Your task to perform on an android device: turn on showing notifications on the lock screen Image 0: 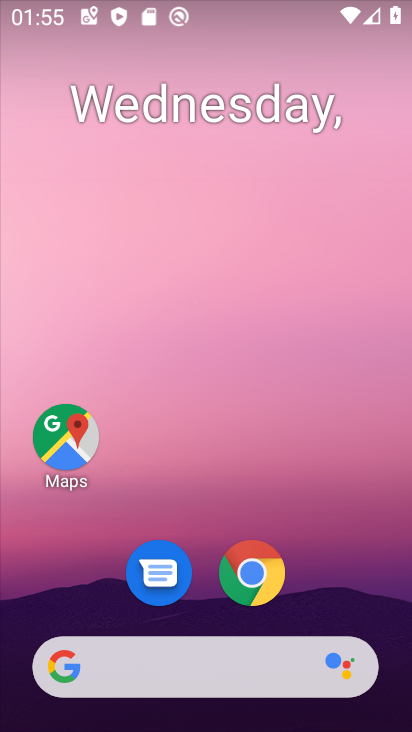
Step 0: drag from (329, 583) to (266, 43)
Your task to perform on an android device: turn on showing notifications on the lock screen Image 1: 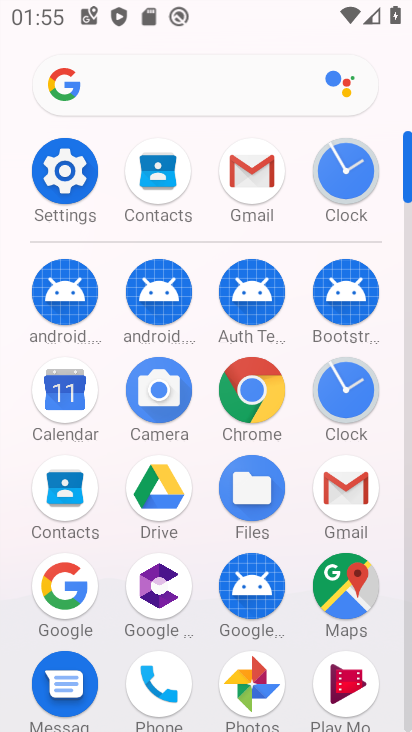
Step 1: click (63, 170)
Your task to perform on an android device: turn on showing notifications on the lock screen Image 2: 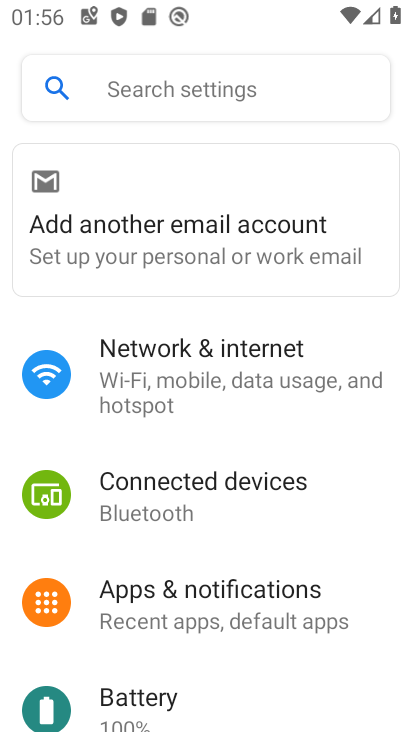
Step 2: drag from (207, 565) to (234, 405)
Your task to perform on an android device: turn on showing notifications on the lock screen Image 3: 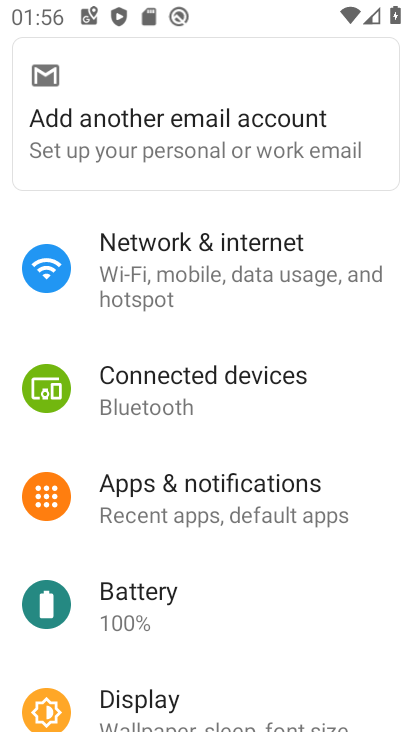
Step 3: click (210, 495)
Your task to perform on an android device: turn on showing notifications on the lock screen Image 4: 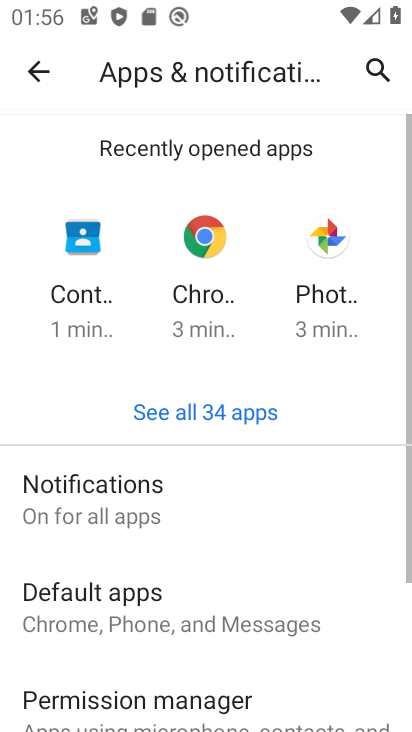
Step 4: click (125, 490)
Your task to perform on an android device: turn on showing notifications on the lock screen Image 5: 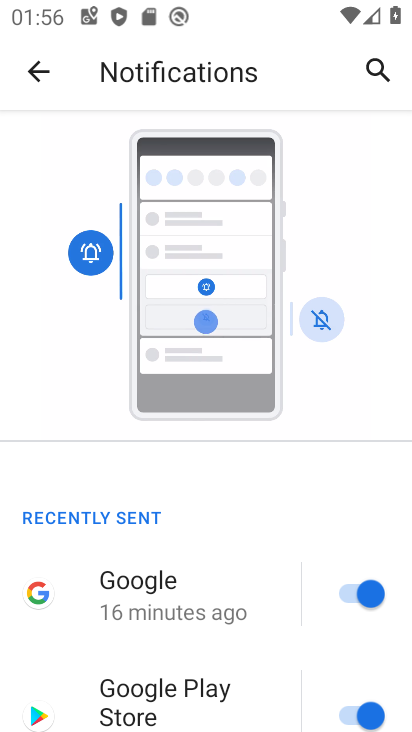
Step 5: drag from (198, 656) to (232, 408)
Your task to perform on an android device: turn on showing notifications on the lock screen Image 6: 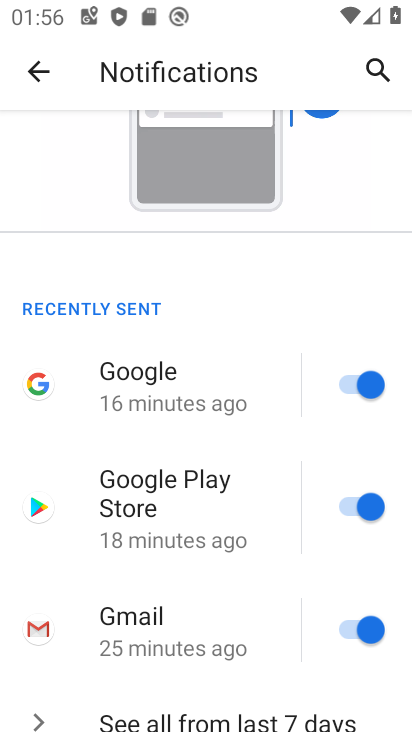
Step 6: drag from (231, 599) to (266, 348)
Your task to perform on an android device: turn on showing notifications on the lock screen Image 7: 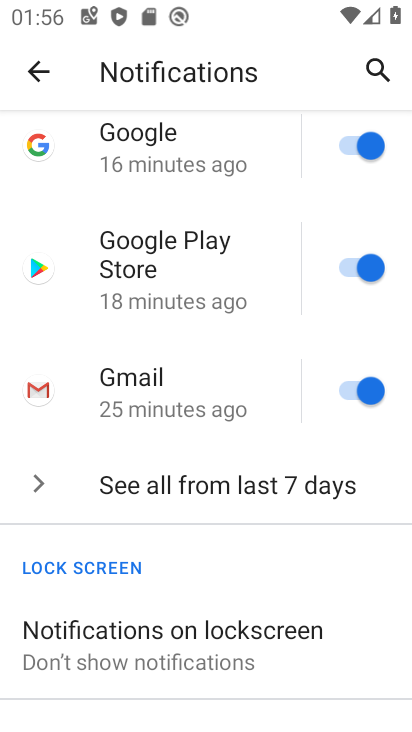
Step 7: drag from (195, 571) to (251, 422)
Your task to perform on an android device: turn on showing notifications on the lock screen Image 8: 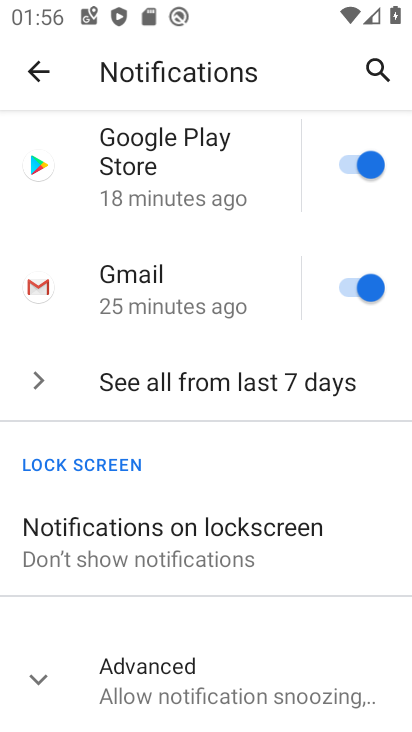
Step 8: click (204, 525)
Your task to perform on an android device: turn on showing notifications on the lock screen Image 9: 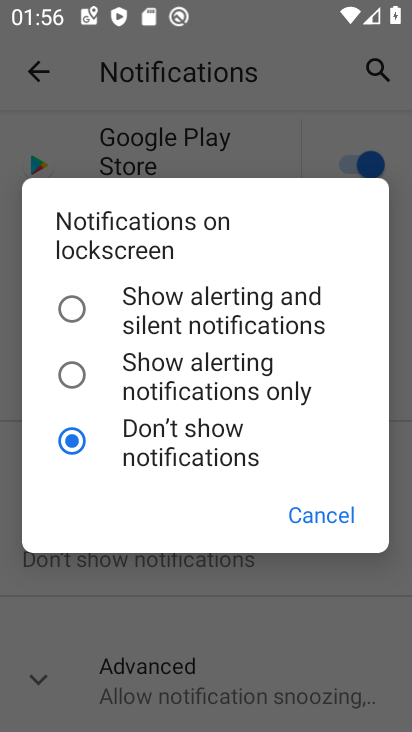
Step 9: click (77, 310)
Your task to perform on an android device: turn on showing notifications on the lock screen Image 10: 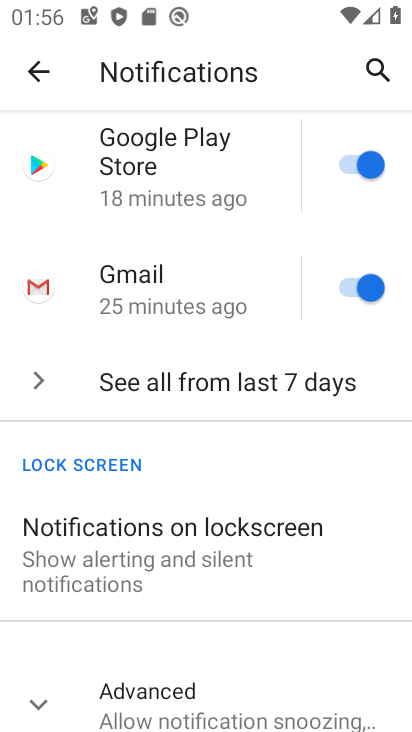
Step 10: task complete